Your task to perform on an android device: add a label to a message in the gmail app Image 0: 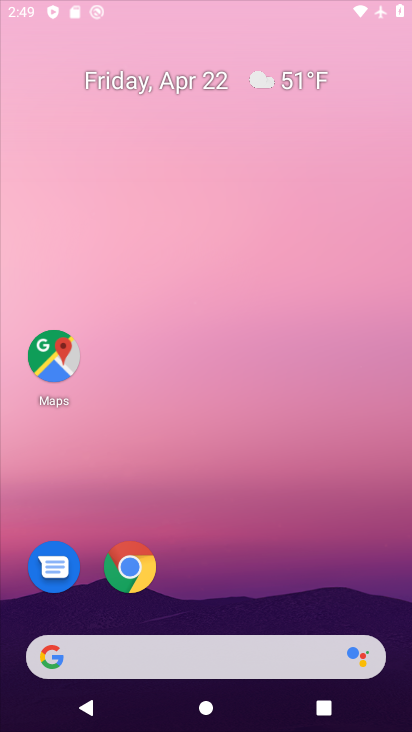
Step 0: drag from (125, 247) to (111, 185)
Your task to perform on an android device: add a label to a message in the gmail app Image 1: 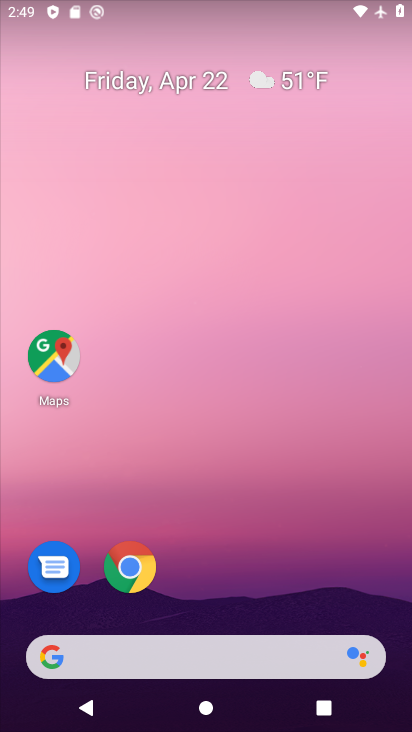
Step 1: drag from (266, 696) to (168, 217)
Your task to perform on an android device: add a label to a message in the gmail app Image 2: 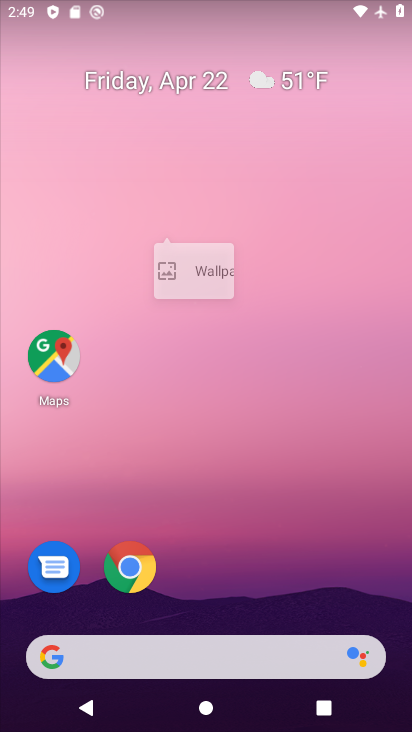
Step 2: drag from (270, 575) to (104, 9)
Your task to perform on an android device: add a label to a message in the gmail app Image 3: 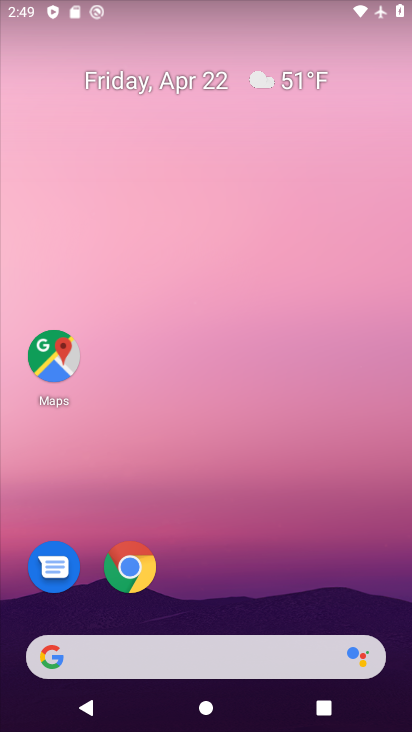
Step 3: drag from (284, 560) to (121, 61)
Your task to perform on an android device: add a label to a message in the gmail app Image 4: 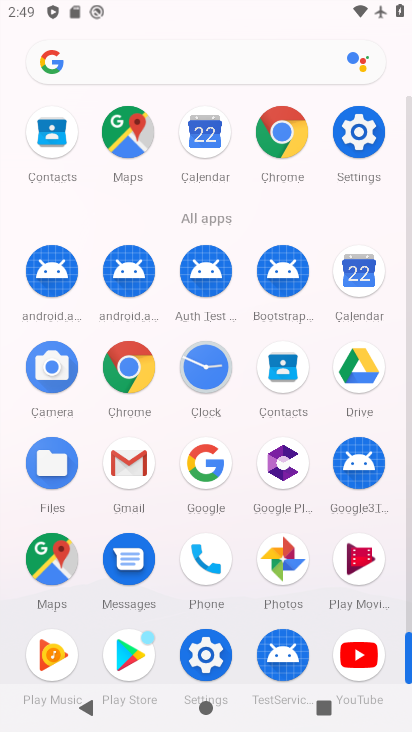
Step 4: click (118, 463)
Your task to perform on an android device: add a label to a message in the gmail app Image 5: 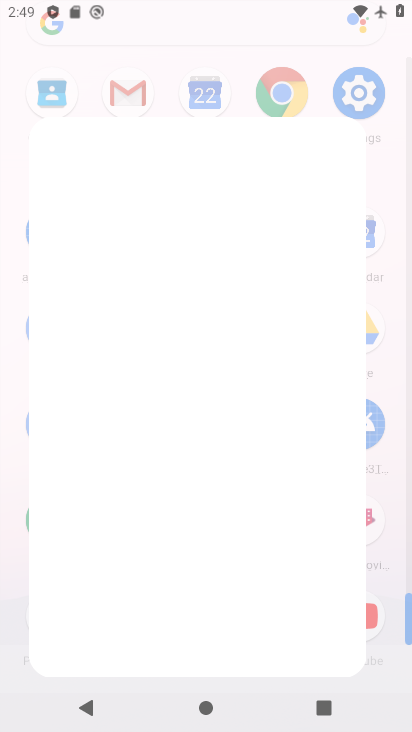
Step 5: click (118, 462)
Your task to perform on an android device: add a label to a message in the gmail app Image 6: 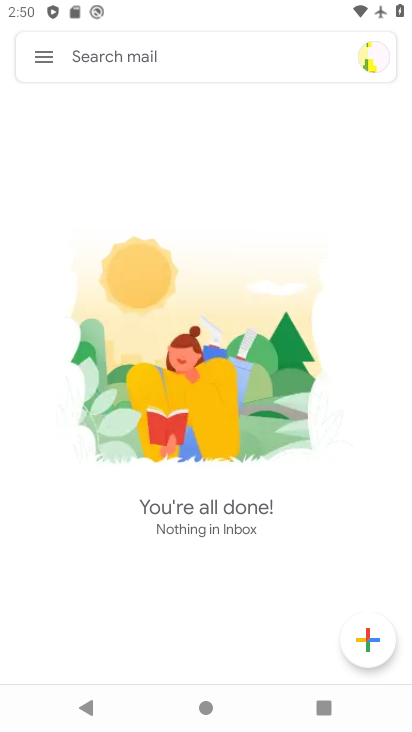
Step 6: click (29, 45)
Your task to perform on an android device: add a label to a message in the gmail app Image 7: 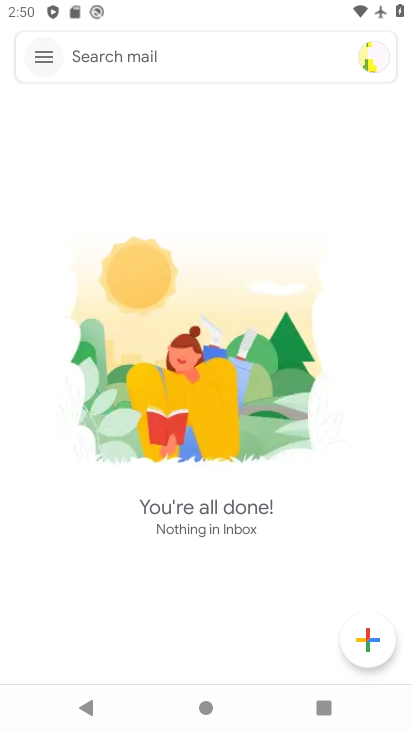
Step 7: click (40, 60)
Your task to perform on an android device: add a label to a message in the gmail app Image 8: 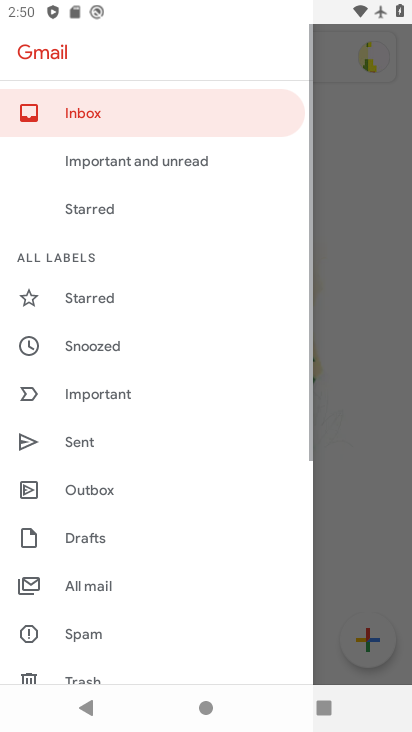
Step 8: click (41, 60)
Your task to perform on an android device: add a label to a message in the gmail app Image 9: 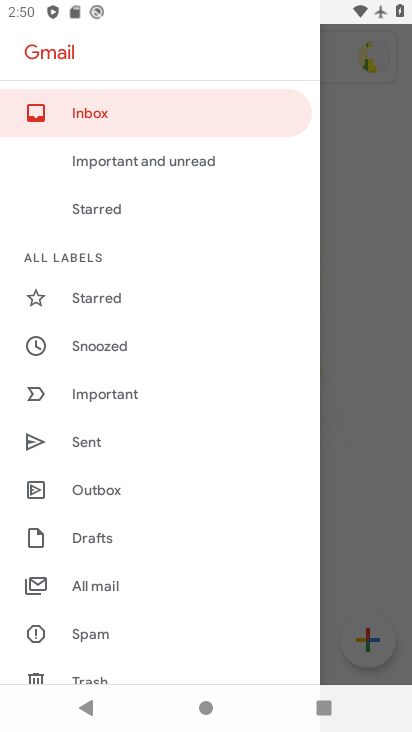
Step 9: click (88, 590)
Your task to perform on an android device: add a label to a message in the gmail app Image 10: 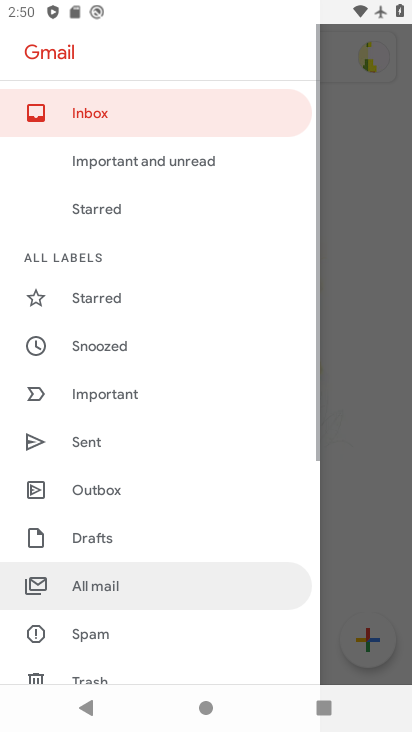
Step 10: click (88, 590)
Your task to perform on an android device: add a label to a message in the gmail app Image 11: 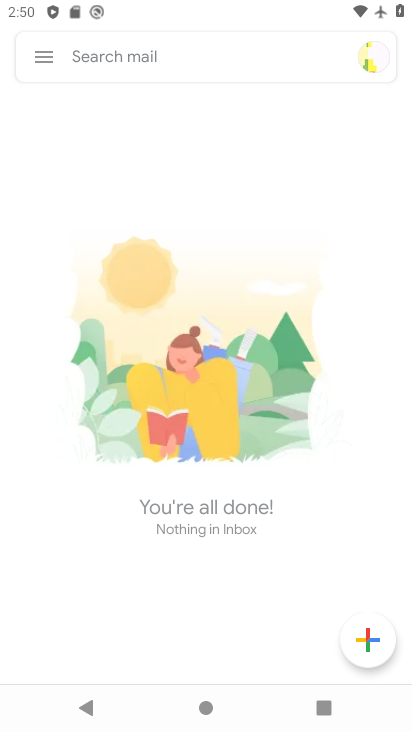
Step 11: click (88, 590)
Your task to perform on an android device: add a label to a message in the gmail app Image 12: 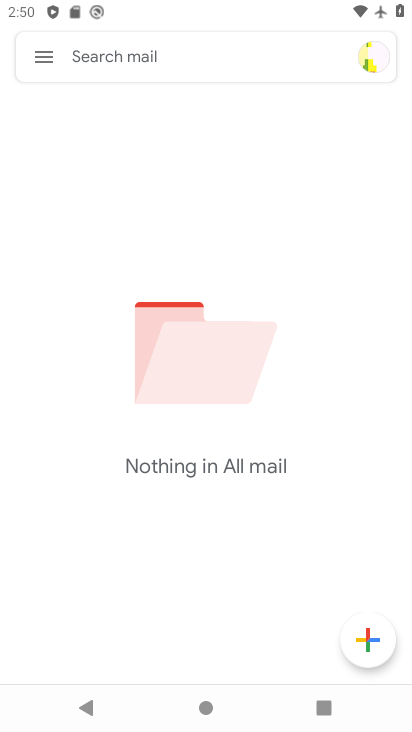
Step 12: task complete